Your task to perform on an android device: search for starred emails in the gmail app Image 0: 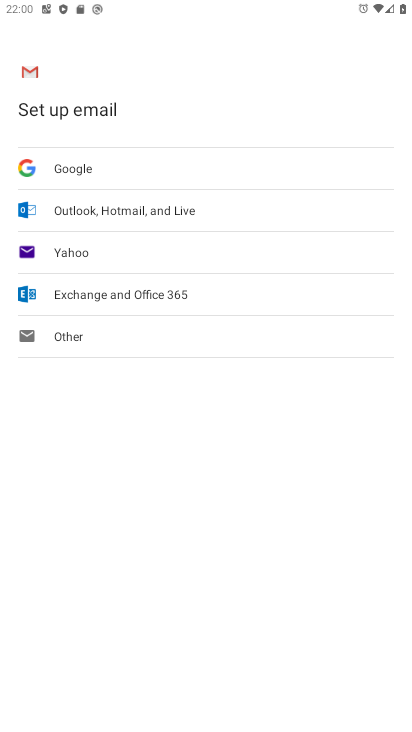
Step 0: press home button
Your task to perform on an android device: search for starred emails in the gmail app Image 1: 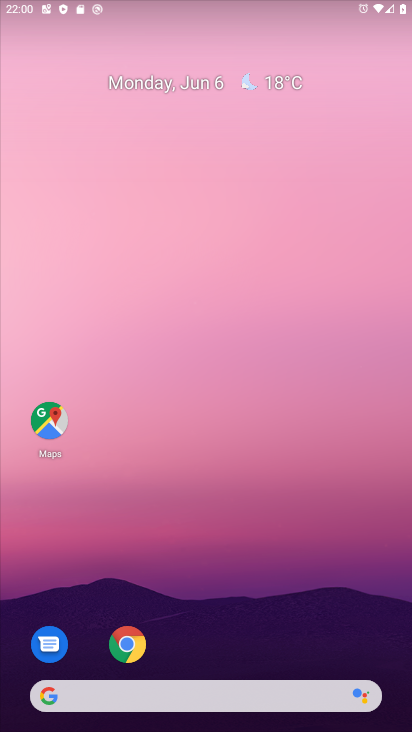
Step 1: drag from (351, 612) to (318, 211)
Your task to perform on an android device: search for starred emails in the gmail app Image 2: 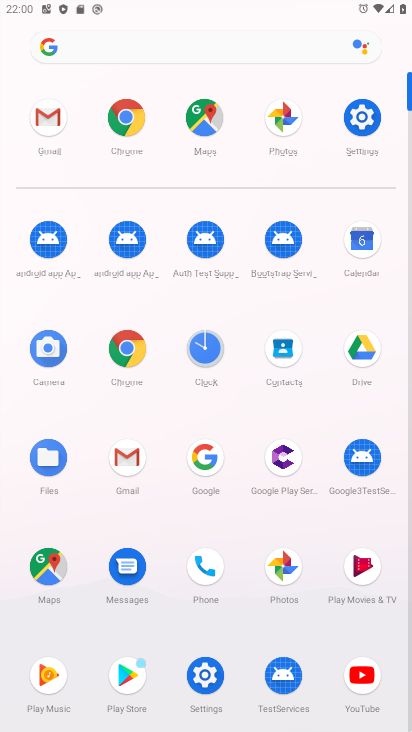
Step 2: click (124, 471)
Your task to perform on an android device: search for starred emails in the gmail app Image 3: 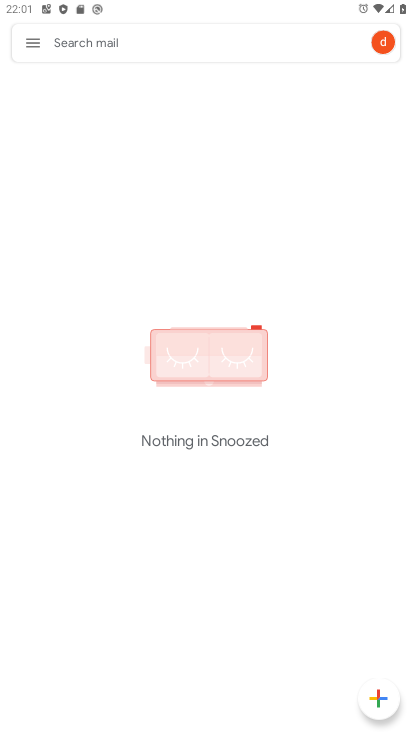
Step 3: click (41, 44)
Your task to perform on an android device: search for starred emails in the gmail app Image 4: 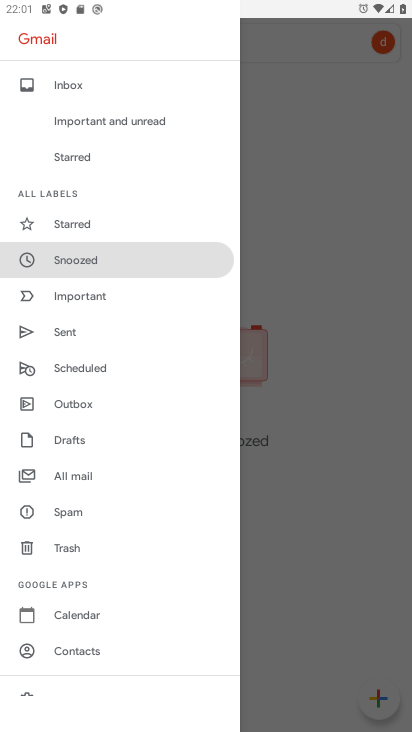
Step 4: drag from (159, 647) to (134, 243)
Your task to perform on an android device: search for starred emails in the gmail app Image 5: 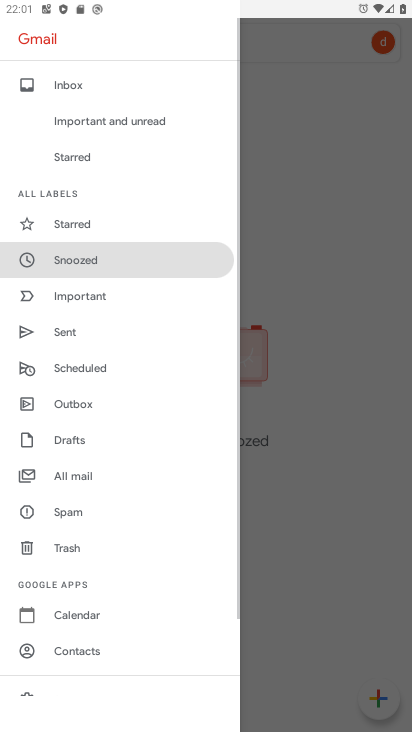
Step 5: drag from (112, 563) to (127, 318)
Your task to perform on an android device: search for starred emails in the gmail app Image 6: 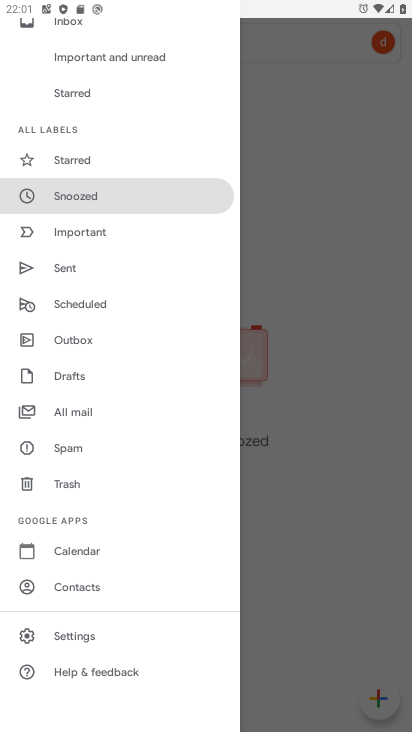
Step 6: click (128, 151)
Your task to perform on an android device: search for starred emails in the gmail app Image 7: 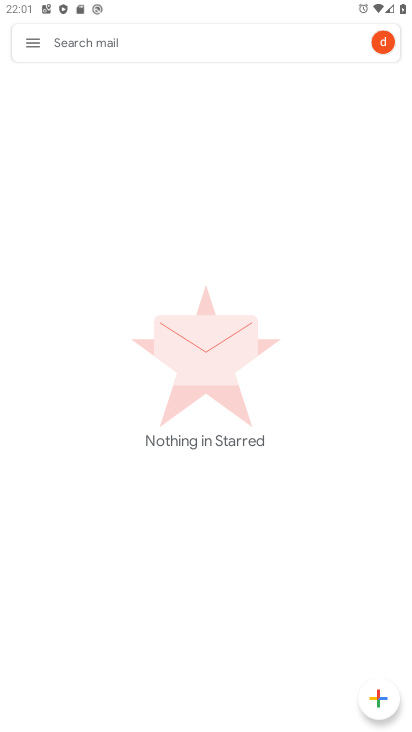
Step 7: task complete